Your task to perform on an android device: delete the emails in spam in the gmail app Image 0: 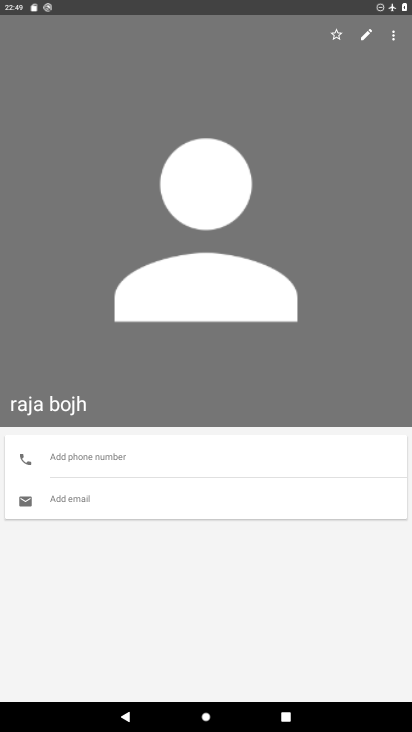
Step 0: press home button
Your task to perform on an android device: delete the emails in spam in the gmail app Image 1: 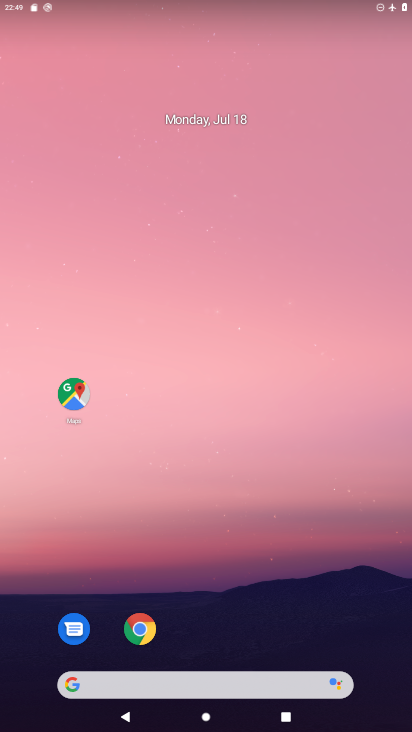
Step 1: drag from (302, 601) to (259, 58)
Your task to perform on an android device: delete the emails in spam in the gmail app Image 2: 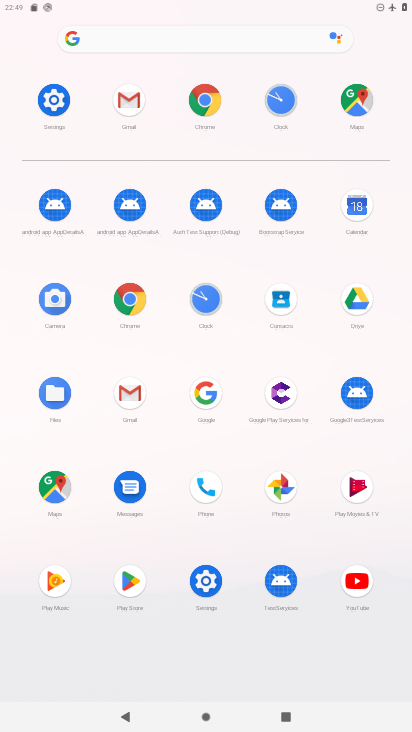
Step 2: click (130, 101)
Your task to perform on an android device: delete the emails in spam in the gmail app Image 3: 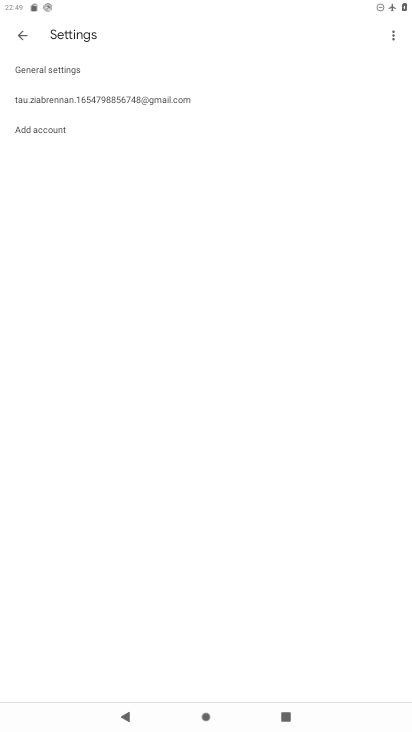
Step 3: click (21, 36)
Your task to perform on an android device: delete the emails in spam in the gmail app Image 4: 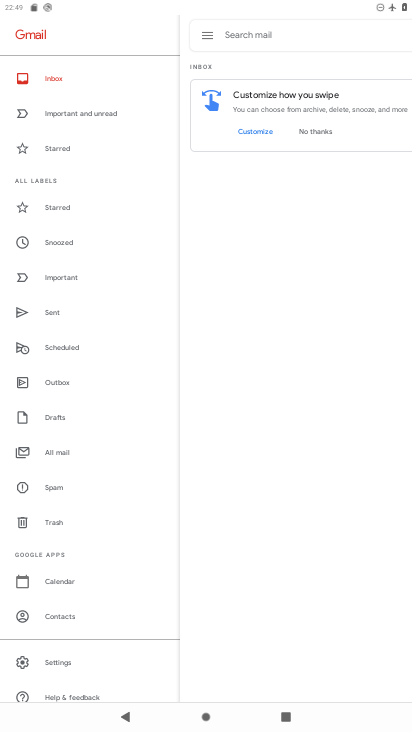
Step 4: click (60, 489)
Your task to perform on an android device: delete the emails in spam in the gmail app Image 5: 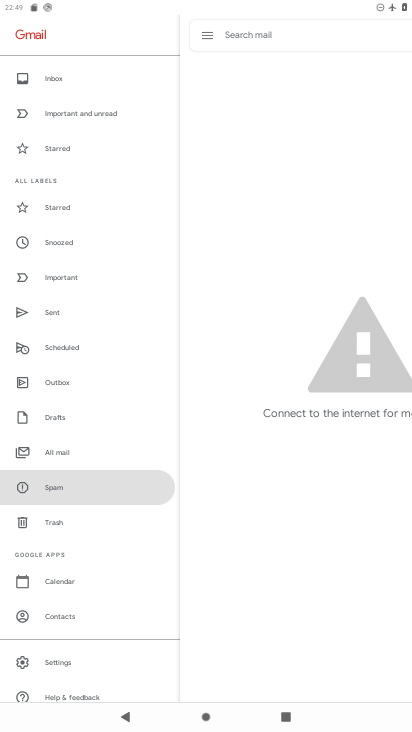
Step 5: task complete